Your task to perform on an android device: open app "Google Find My Device" Image 0: 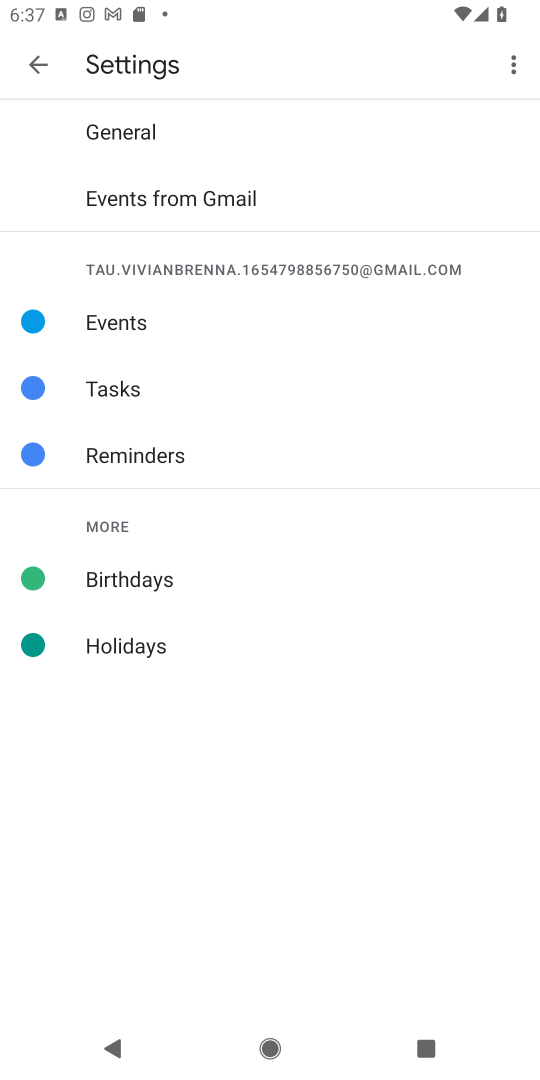
Step 0: press home button
Your task to perform on an android device: open app "Google Find My Device" Image 1: 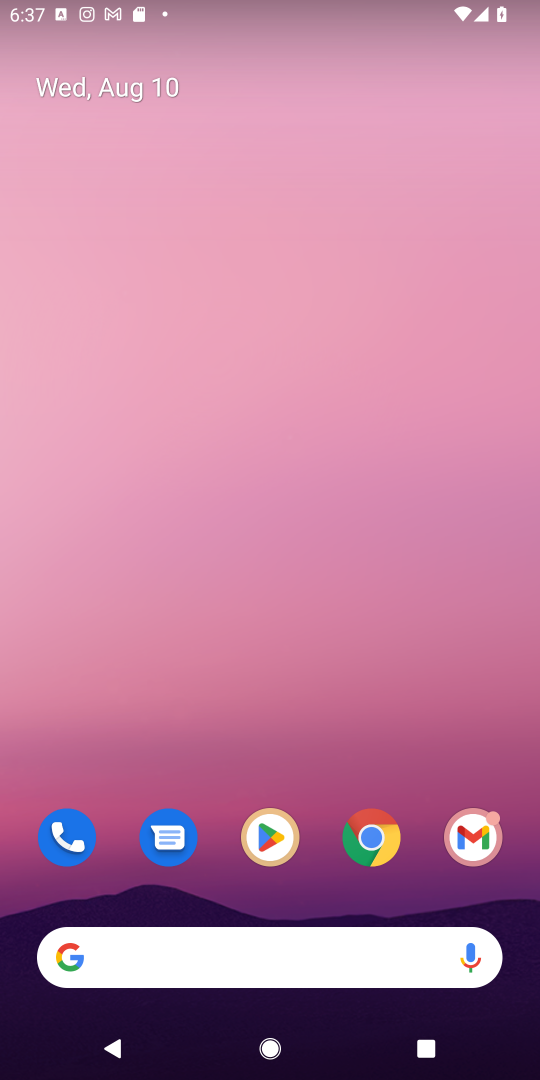
Step 1: click (270, 820)
Your task to perform on an android device: open app "Google Find My Device" Image 2: 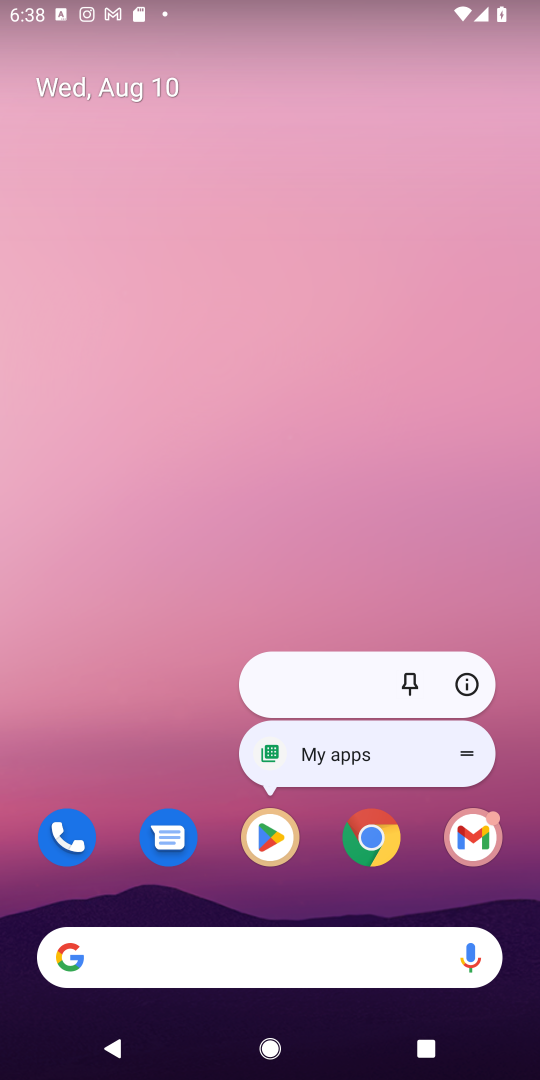
Step 2: click (270, 820)
Your task to perform on an android device: open app "Google Find My Device" Image 3: 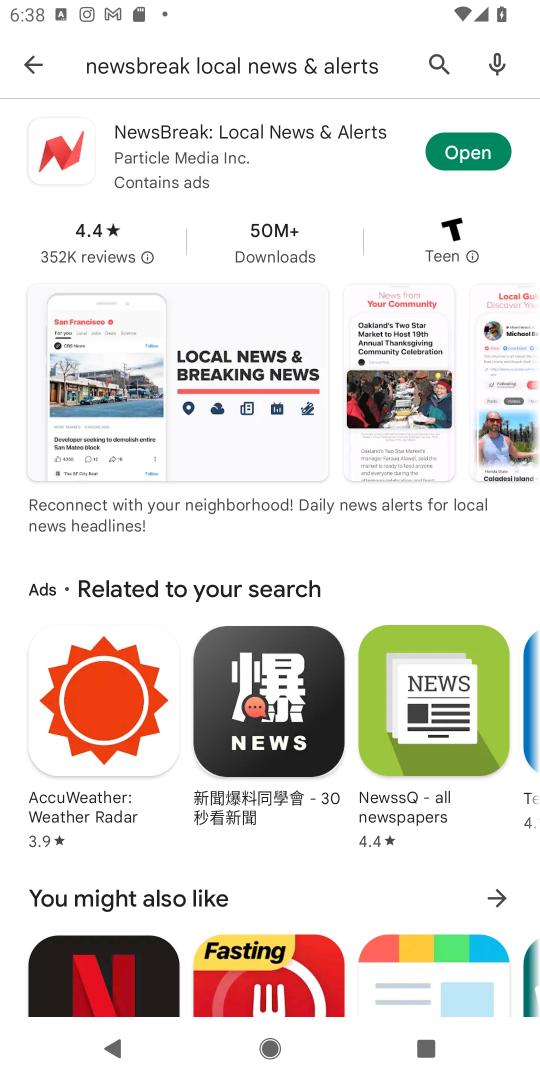
Step 3: click (434, 48)
Your task to perform on an android device: open app "Google Find My Device" Image 4: 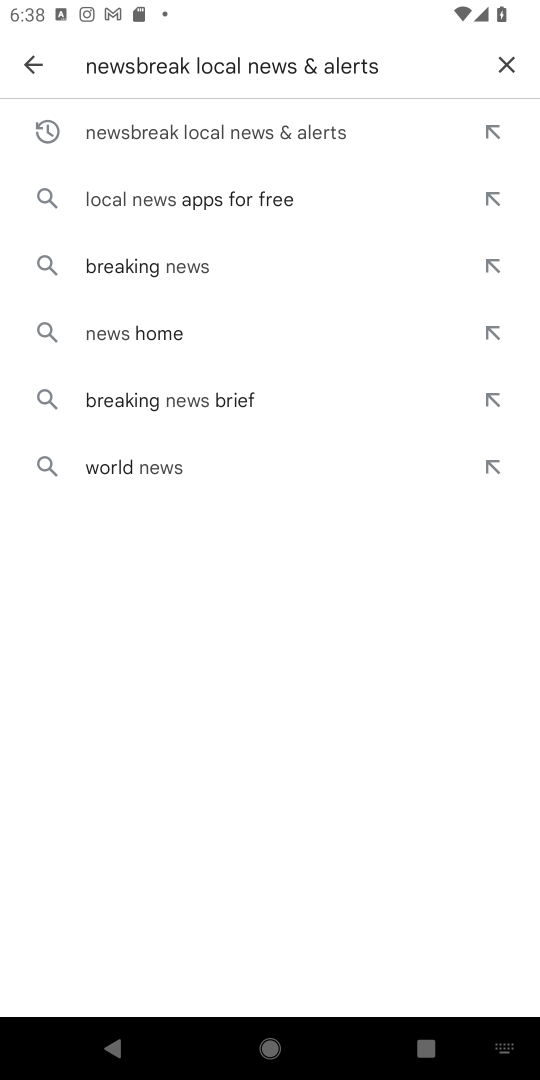
Step 4: click (495, 54)
Your task to perform on an android device: open app "Google Find My Device" Image 5: 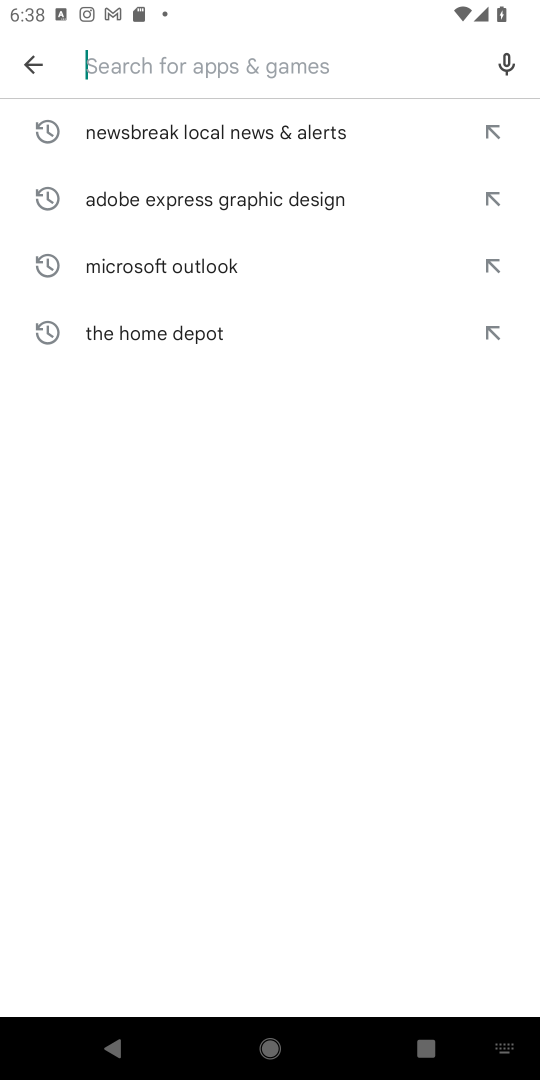
Step 5: type "Google Find My Device"
Your task to perform on an android device: open app "Google Find My Device" Image 6: 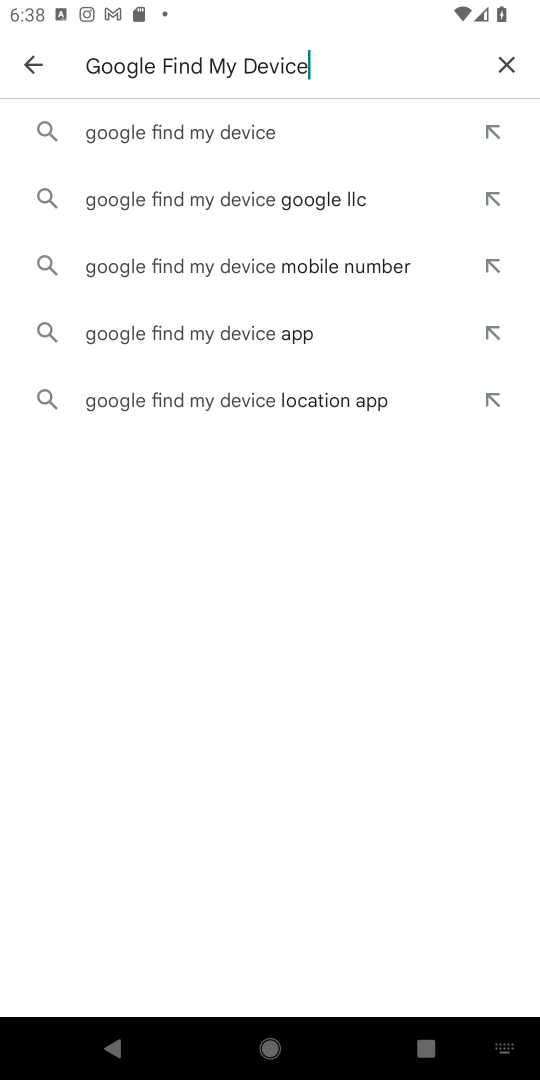
Step 6: click (221, 126)
Your task to perform on an android device: open app "Google Find My Device" Image 7: 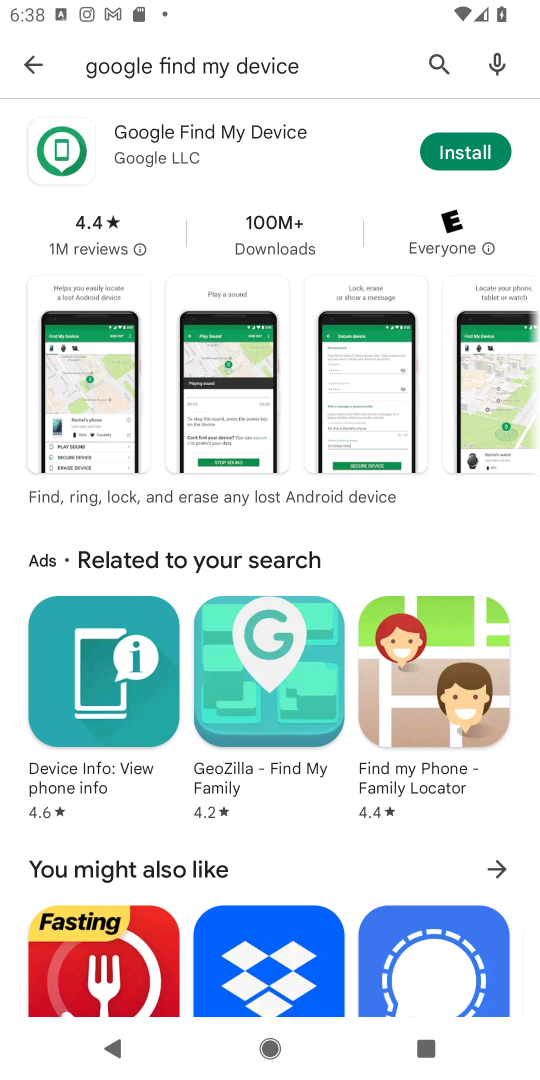
Step 7: task complete